Your task to perform on an android device: View the shopping cart on walmart.com. Add logitech g502 to the cart on walmart.com, then select checkout. Image 0: 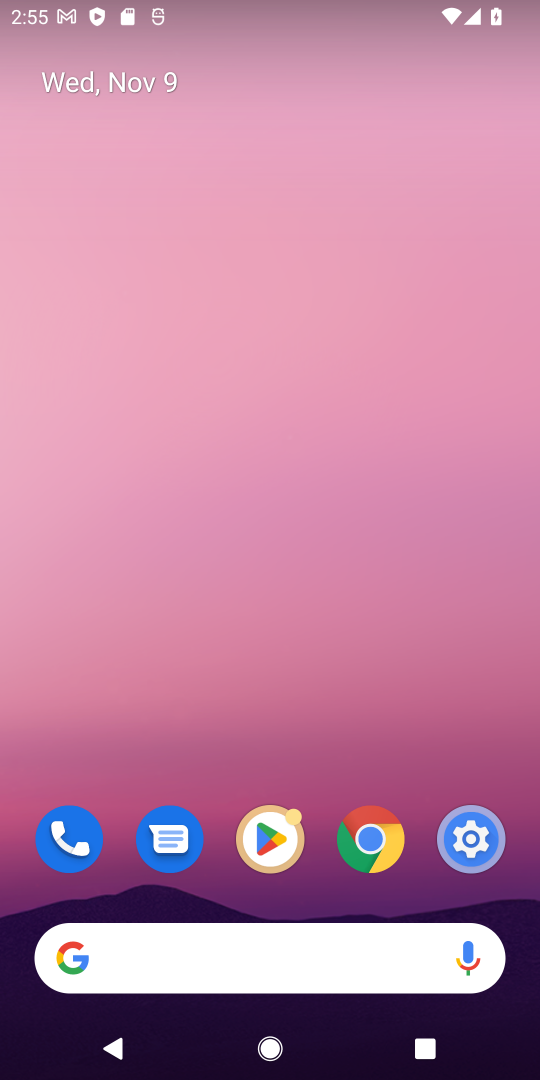
Step 0: click (191, 948)
Your task to perform on an android device: View the shopping cart on walmart.com. Add logitech g502 to the cart on walmart.com, then select checkout. Image 1: 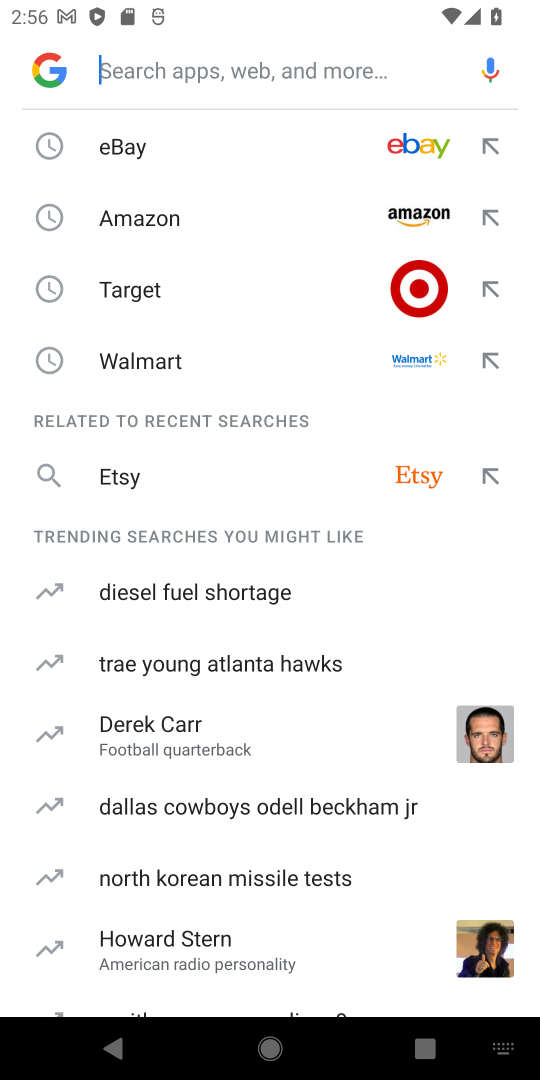
Step 1: click (156, 378)
Your task to perform on an android device: View the shopping cart on walmart.com. Add logitech g502 to the cart on walmart.com, then select checkout. Image 2: 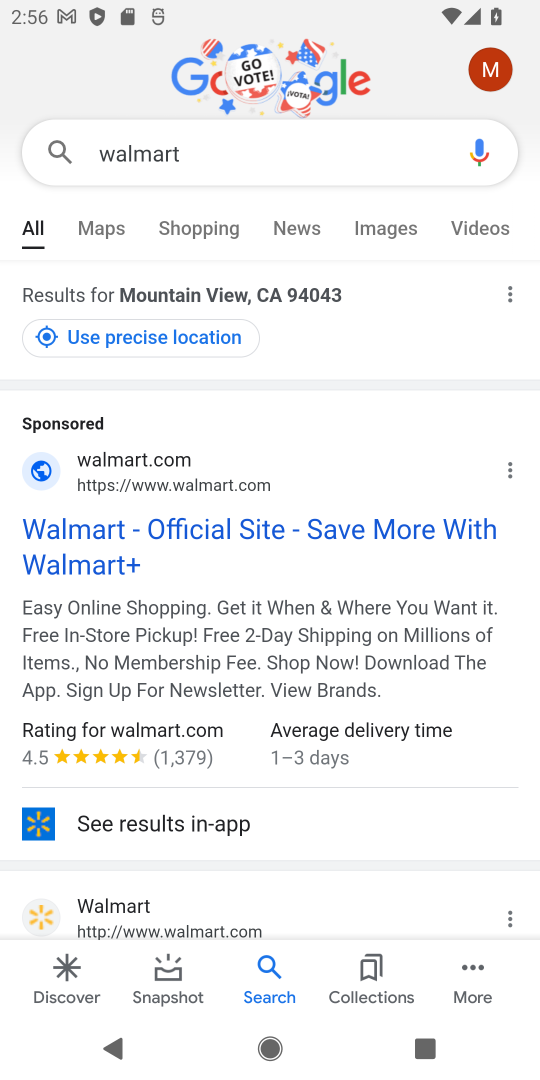
Step 2: click (131, 534)
Your task to perform on an android device: View the shopping cart on walmart.com. Add logitech g502 to the cart on walmart.com, then select checkout. Image 3: 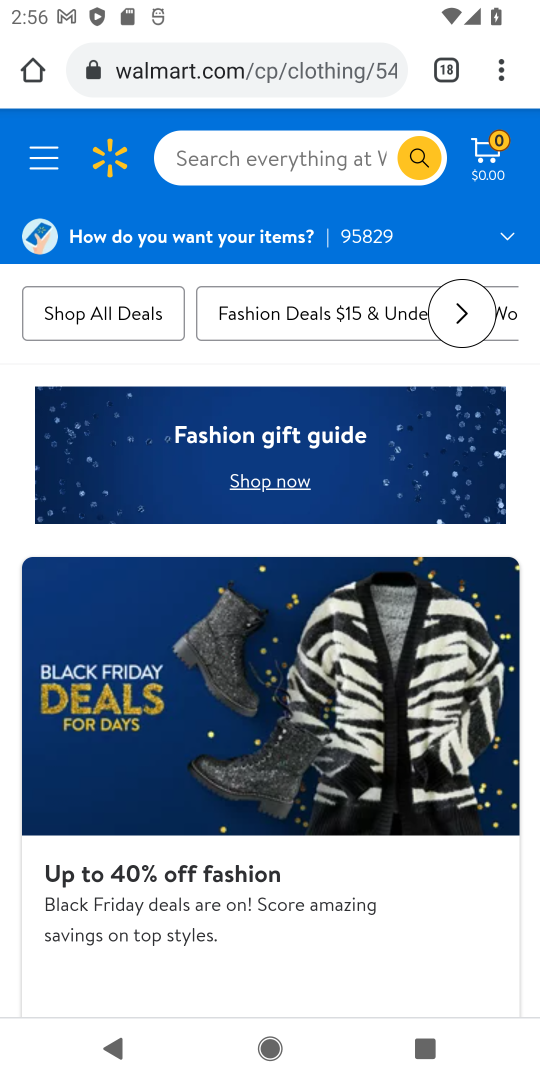
Step 3: click (260, 170)
Your task to perform on an android device: View the shopping cart on walmart.com. Add logitech g502 to the cart on walmart.com, then select checkout. Image 4: 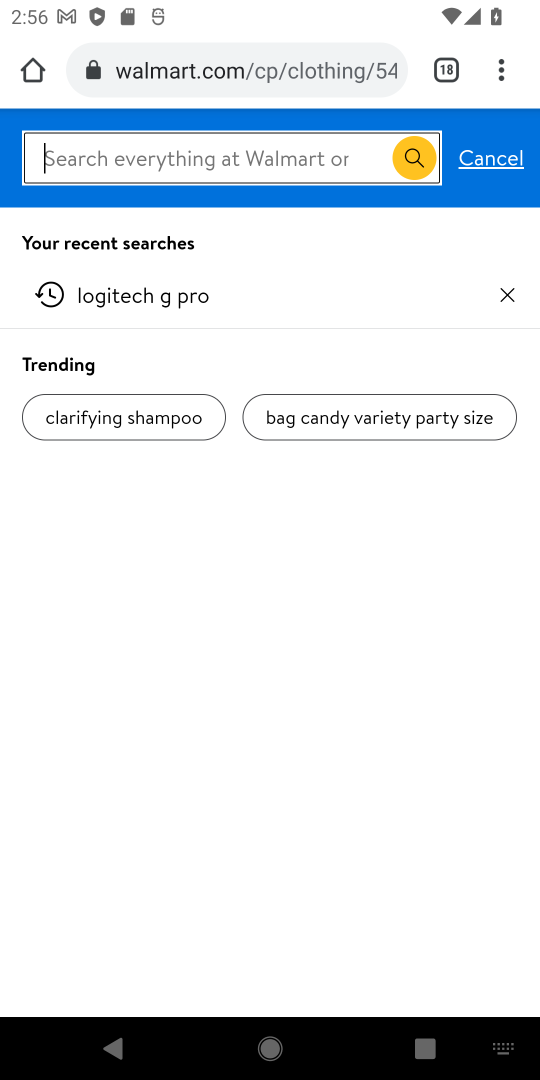
Step 4: type "logitech gpr"
Your task to perform on an android device: View the shopping cart on walmart.com. Add logitech g502 to the cart on walmart.com, then select checkout. Image 5: 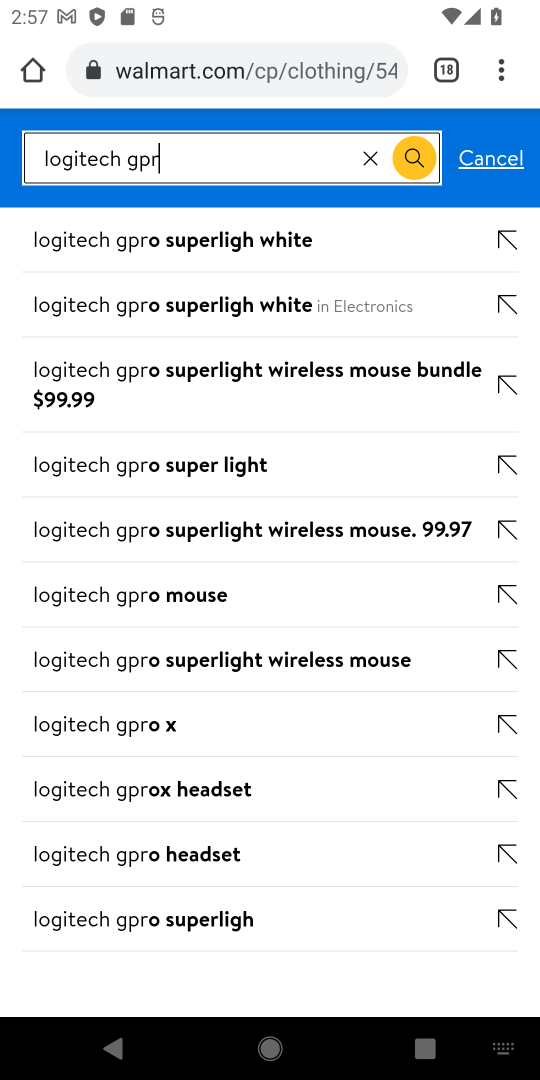
Step 5: click (298, 235)
Your task to perform on an android device: View the shopping cart on walmart.com. Add logitech g502 to the cart on walmart.com, then select checkout. Image 6: 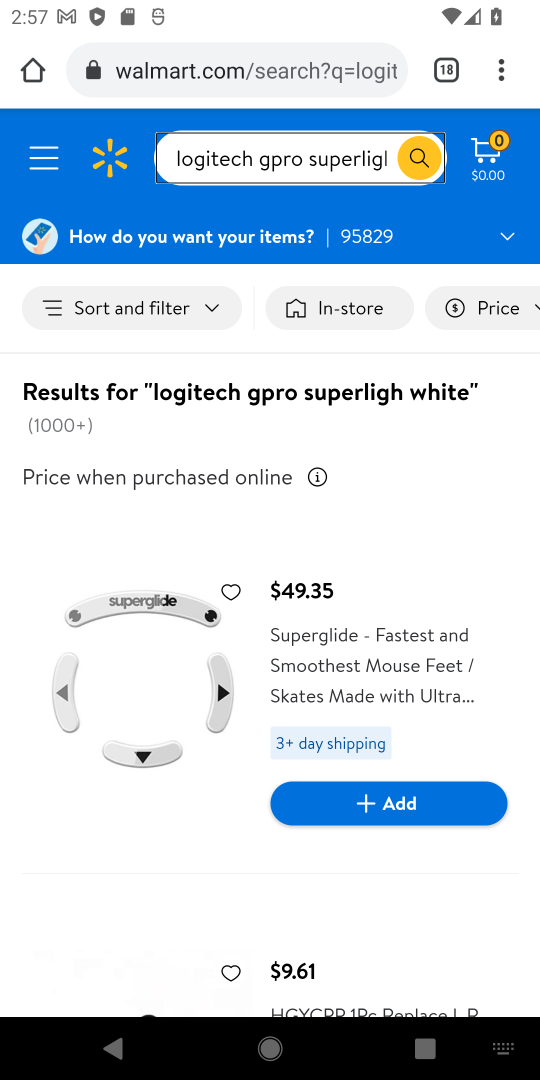
Step 6: click (394, 812)
Your task to perform on an android device: View the shopping cart on walmart.com. Add logitech g502 to the cart on walmart.com, then select checkout. Image 7: 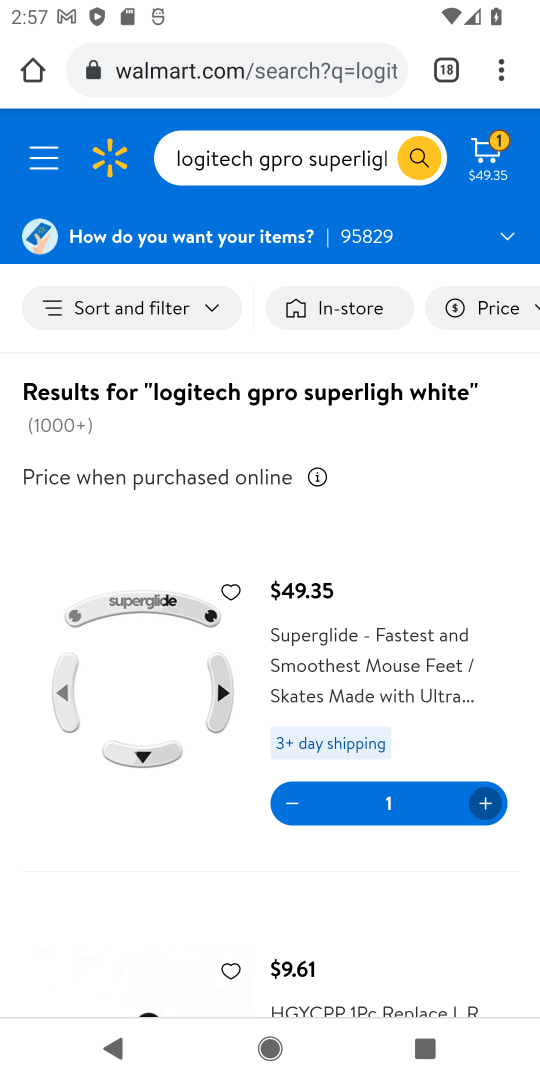
Step 7: task complete